Your task to perform on an android device: turn on location history Image 0: 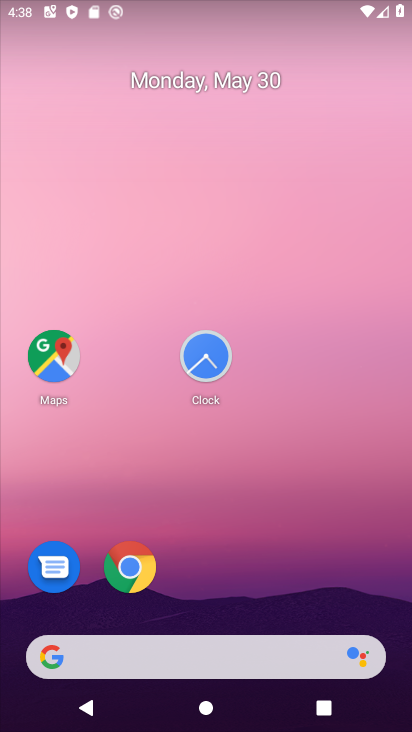
Step 0: drag from (264, 674) to (129, 0)
Your task to perform on an android device: turn on location history Image 1: 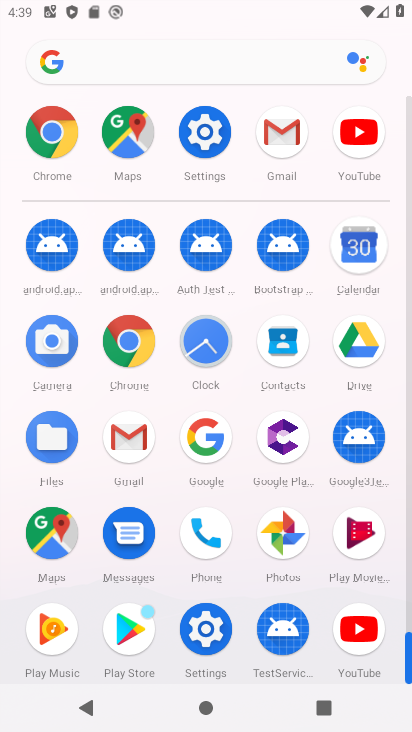
Step 1: click (52, 526)
Your task to perform on an android device: turn on location history Image 2: 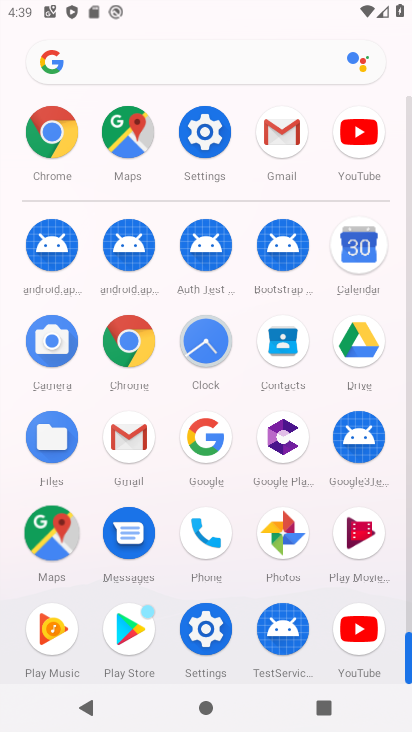
Step 2: click (52, 526)
Your task to perform on an android device: turn on location history Image 3: 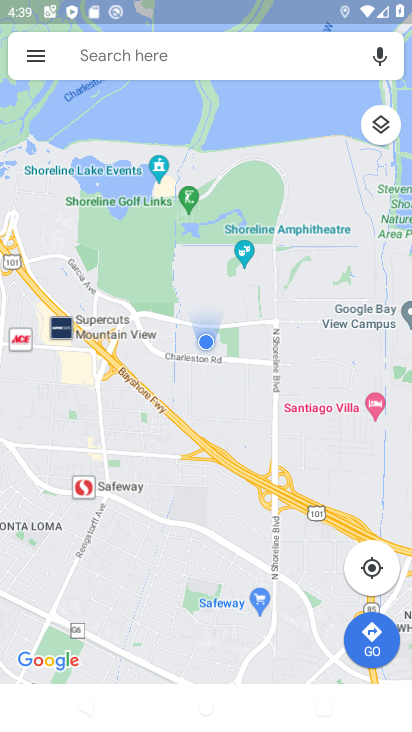
Step 3: click (78, 53)
Your task to perform on an android device: turn on location history Image 4: 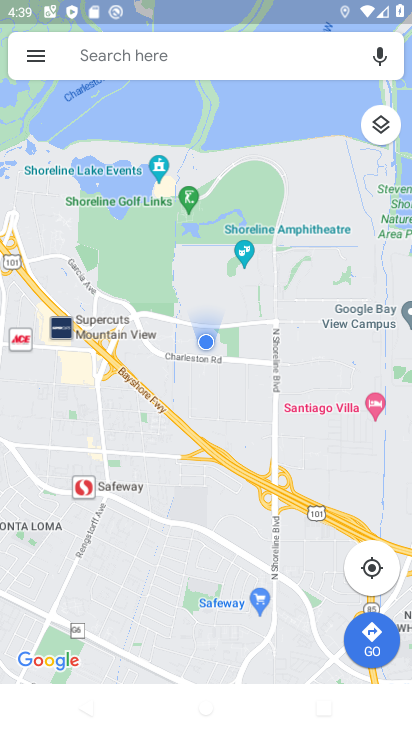
Step 4: click (34, 65)
Your task to perform on an android device: turn on location history Image 5: 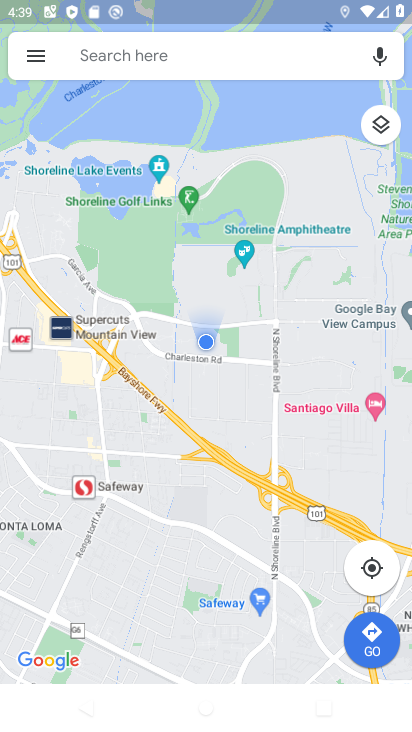
Step 5: click (34, 65)
Your task to perform on an android device: turn on location history Image 6: 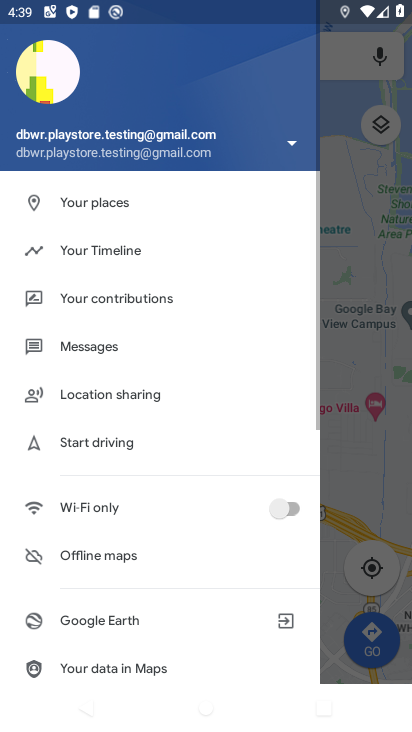
Step 6: click (30, 68)
Your task to perform on an android device: turn on location history Image 7: 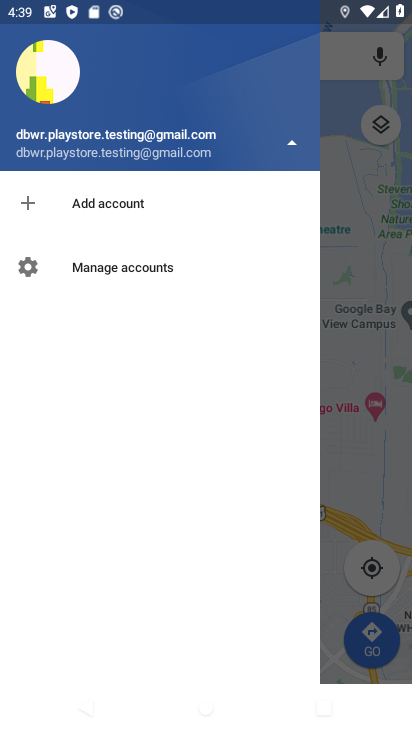
Step 7: click (147, 204)
Your task to perform on an android device: turn on location history Image 8: 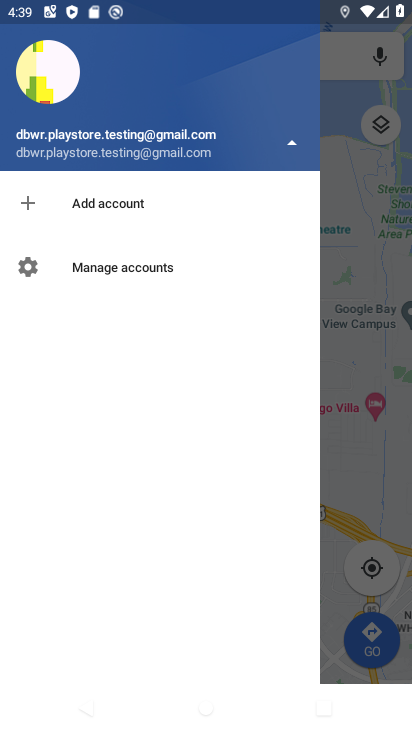
Step 8: click (146, 207)
Your task to perform on an android device: turn on location history Image 9: 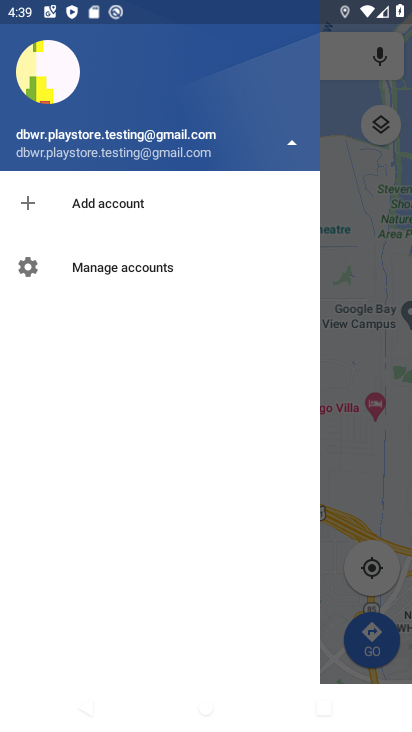
Step 9: click (146, 207)
Your task to perform on an android device: turn on location history Image 10: 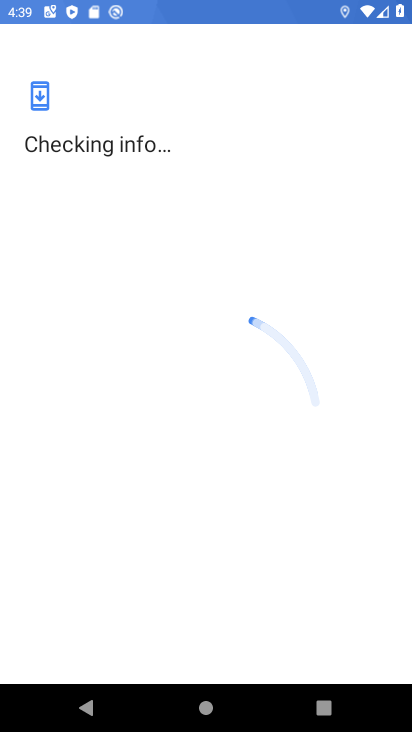
Step 10: click (139, 195)
Your task to perform on an android device: turn on location history Image 11: 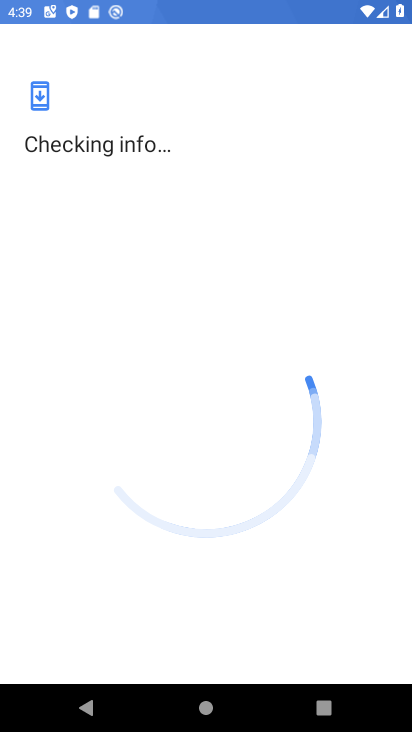
Step 11: click (139, 196)
Your task to perform on an android device: turn on location history Image 12: 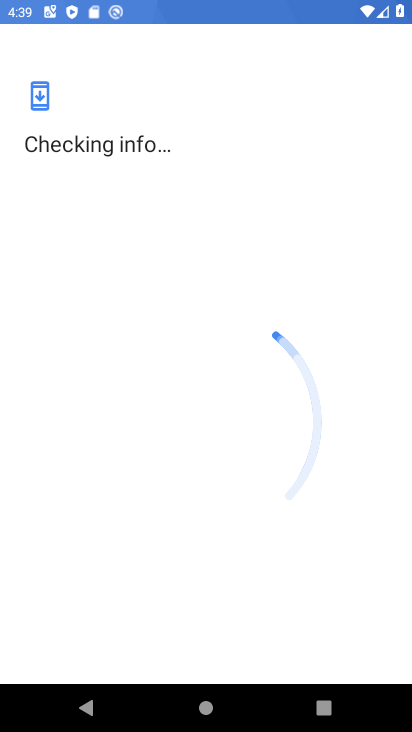
Step 12: press back button
Your task to perform on an android device: turn on location history Image 13: 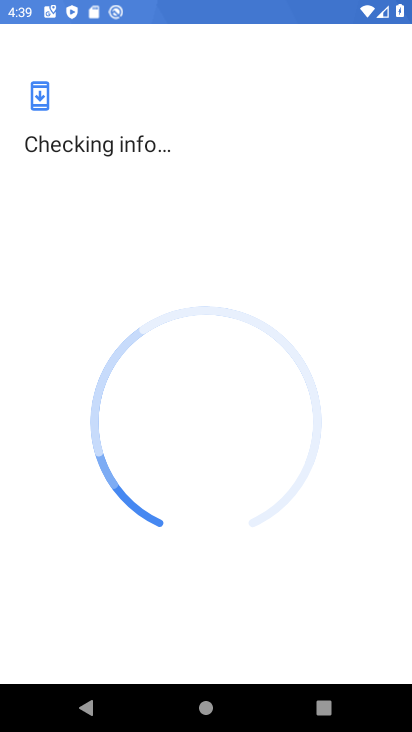
Step 13: press back button
Your task to perform on an android device: turn on location history Image 14: 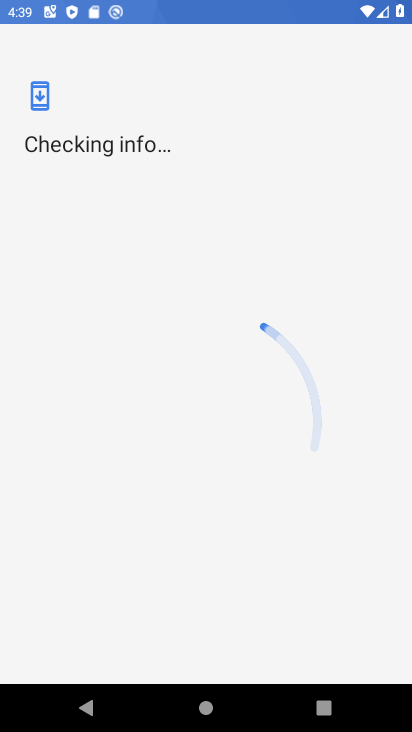
Step 14: press back button
Your task to perform on an android device: turn on location history Image 15: 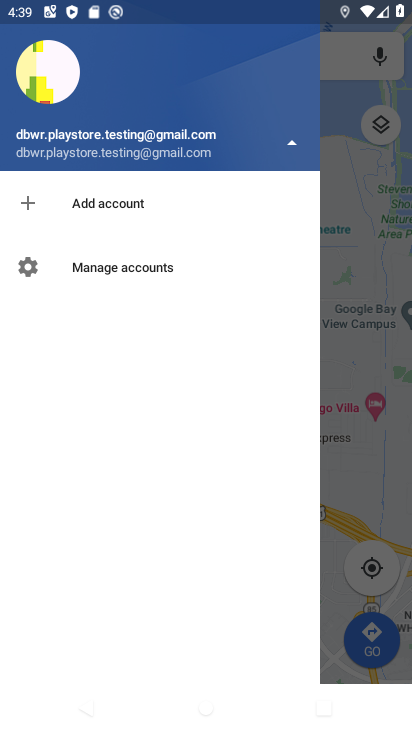
Step 15: press home button
Your task to perform on an android device: turn on location history Image 16: 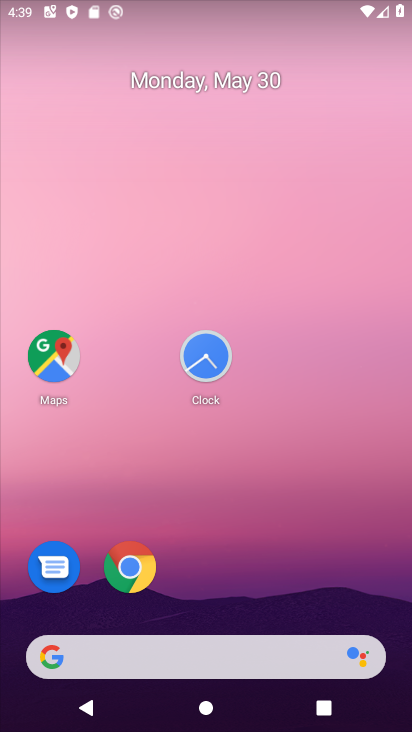
Step 16: drag from (283, 673) to (178, 181)
Your task to perform on an android device: turn on location history Image 17: 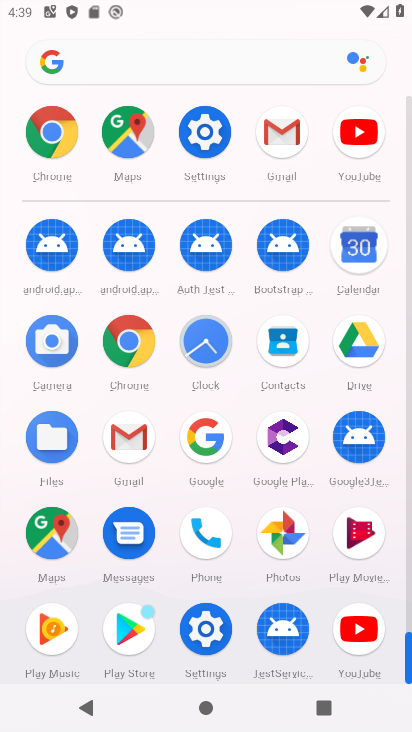
Step 17: drag from (217, 568) to (161, 132)
Your task to perform on an android device: turn on location history Image 18: 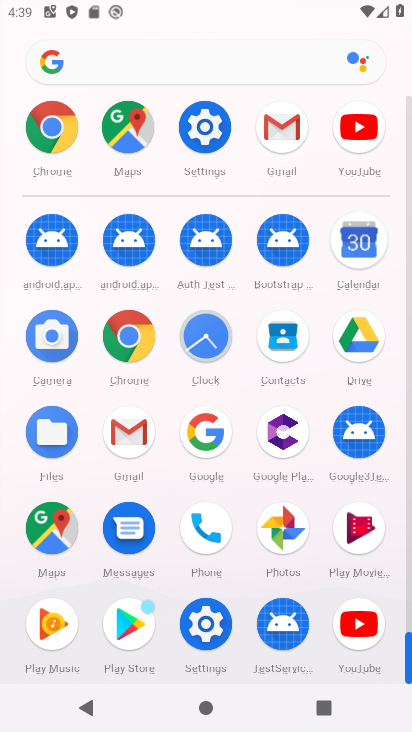
Step 18: click (197, 117)
Your task to perform on an android device: turn on location history Image 19: 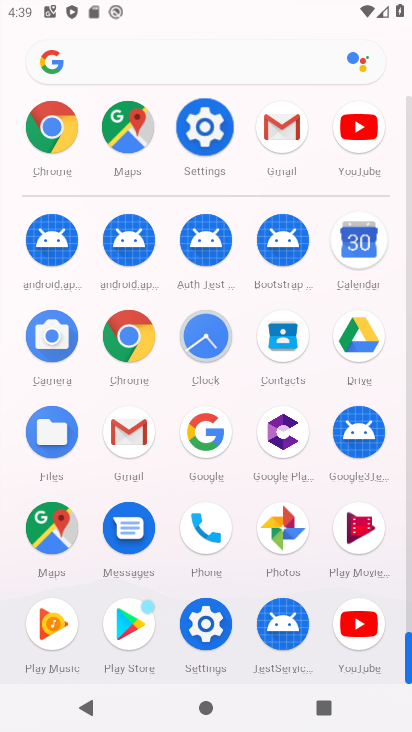
Step 19: click (197, 118)
Your task to perform on an android device: turn on location history Image 20: 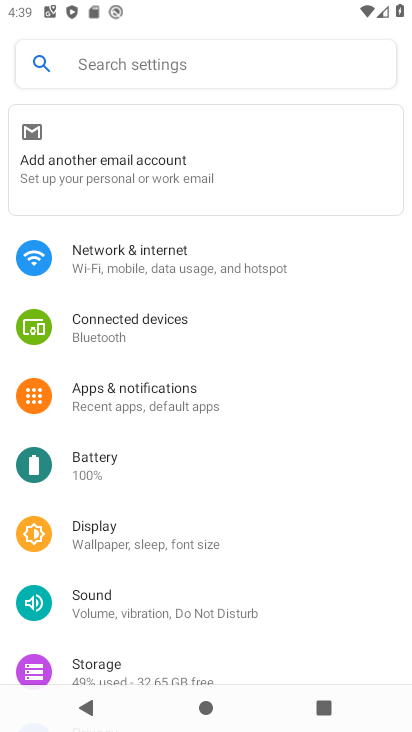
Step 20: click (201, 122)
Your task to perform on an android device: turn on location history Image 21: 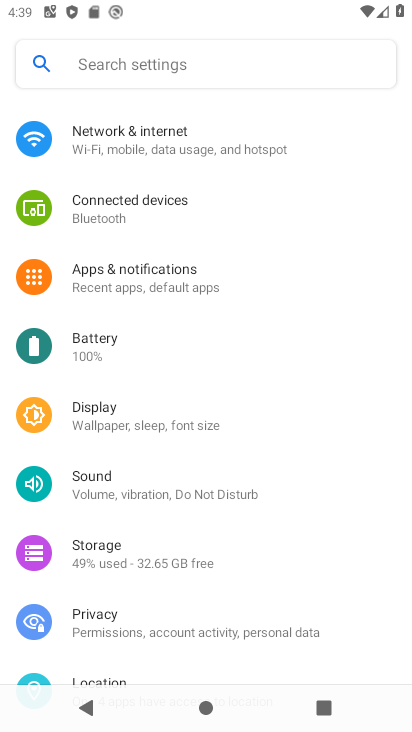
Step 21: click (203, 120)
Your task to perform on an android device: turn on location history Image 22: 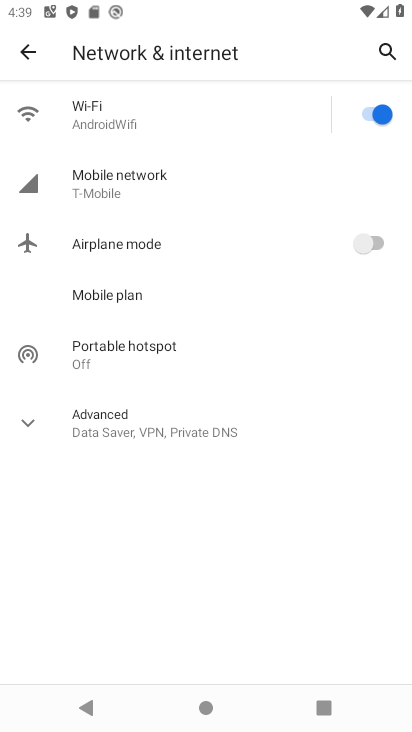
Step 22: click (31, 37)
Your task to perform on an android device: turn on location history Image 23: 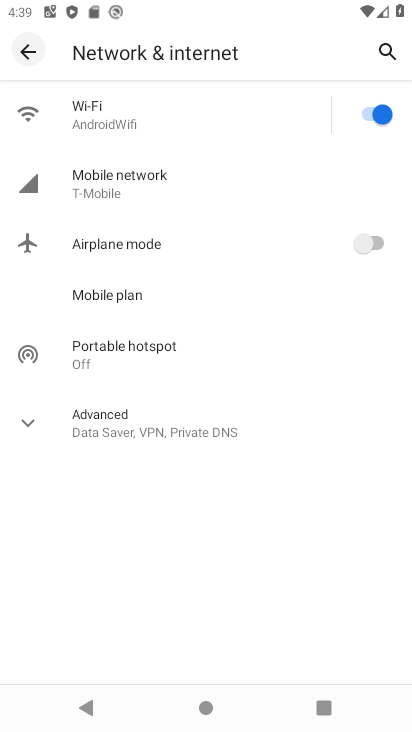
Step 23: click (30, 54)
Your task to perform on an android device: turn on location history Image 24: 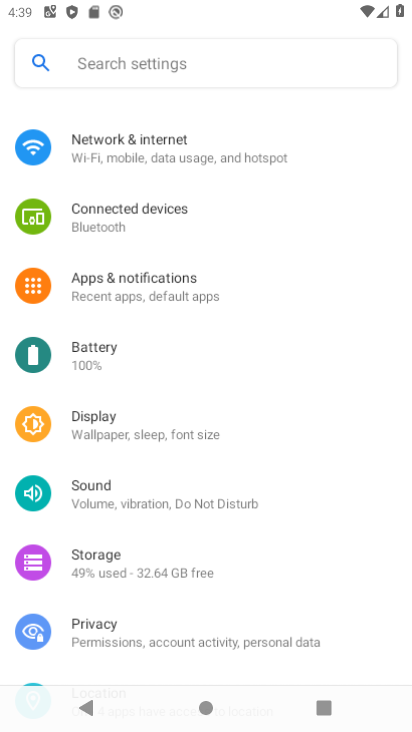
Step 24: click (29, 67)
Your task to perform on an android device: turn on location history Image 25: 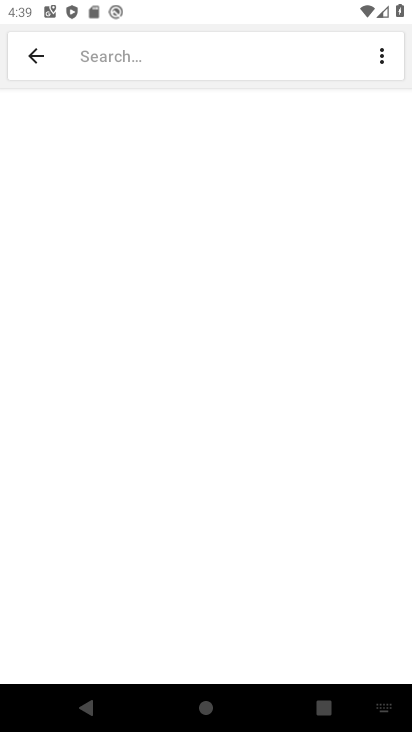
Step 25: click (30, 63)
Your task to perform on an android device: turn on location history Image 26: 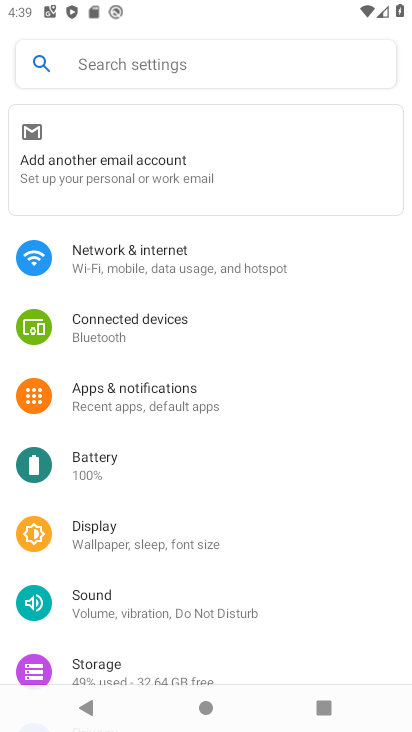
Step 26: drag from (122, 433) to (130, 195)
Your task to perform on an android device: turn on location history Image 27: 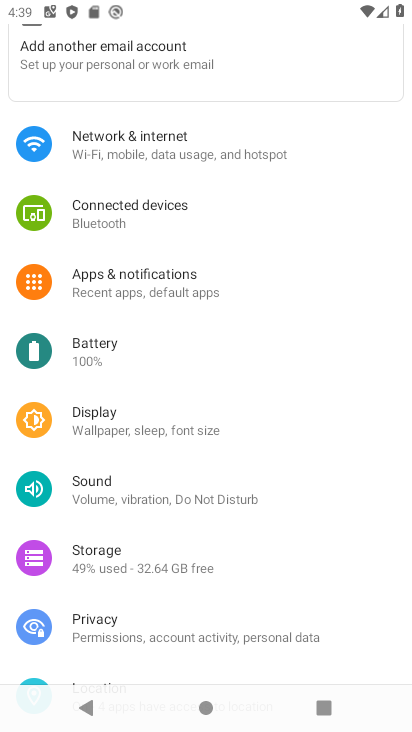
Step 27: drag from (179, 510) to (177, 242)
Your task to perform on an android device: turn on location history Image 28: 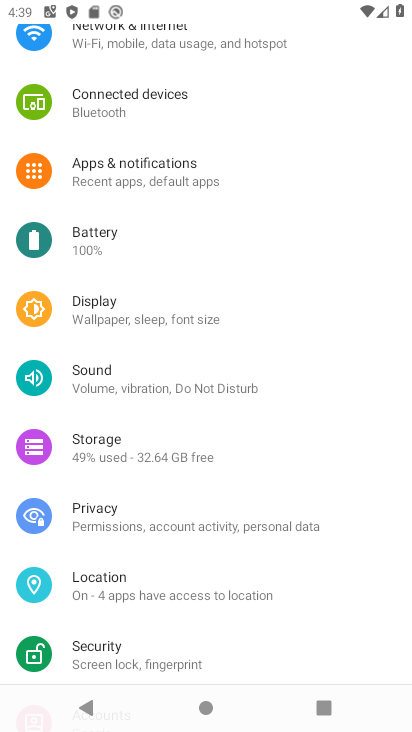
Step 28: drag from (202, 494) to (187, 143)
Your task to perform on an android device: turn on location history Image 29: 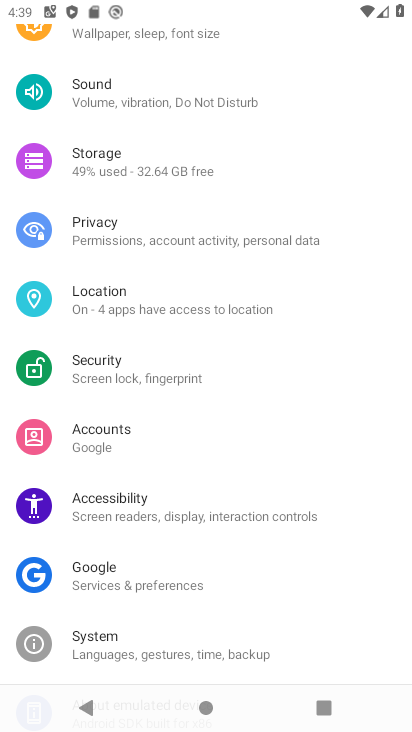
Step 29: click (129, 304)
Your task to perform on an android device: turn on location history Image 30: 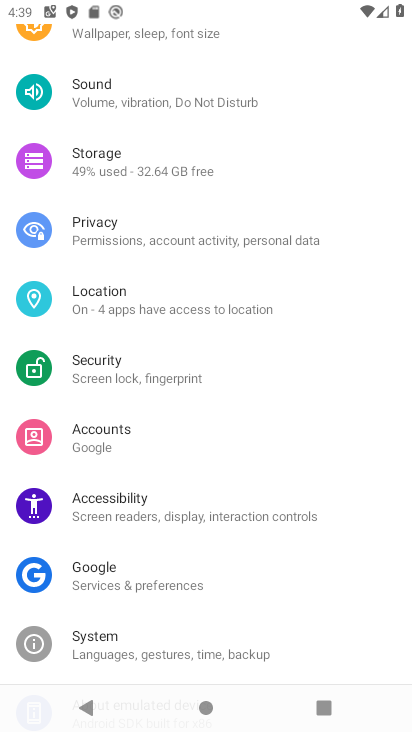
Step 30: click (129, 304)
Your task to perform on an android device: turn on location history Image 31: 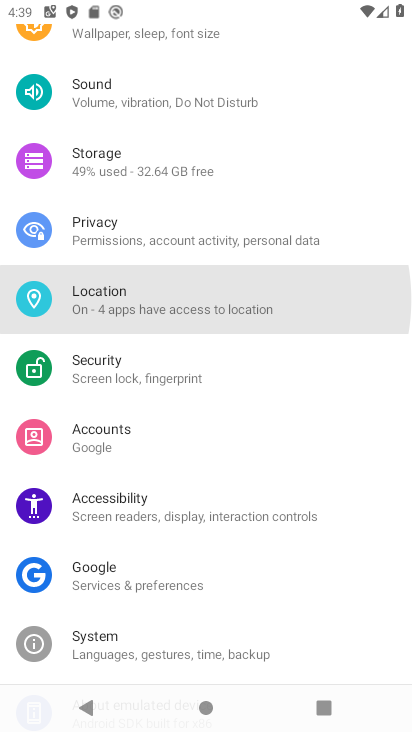
Step 31: click (129, 304)
Your task to perform on an android device: turn on location history Image 32: 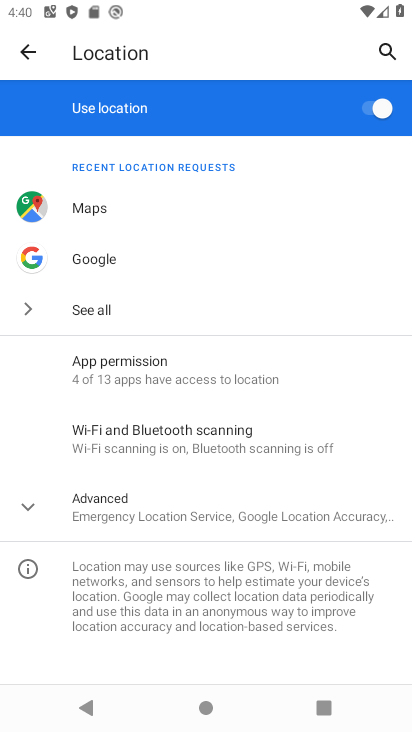
Step 32: click (113, 510)
Your task to perform on an android device: turn on location history Image 33: 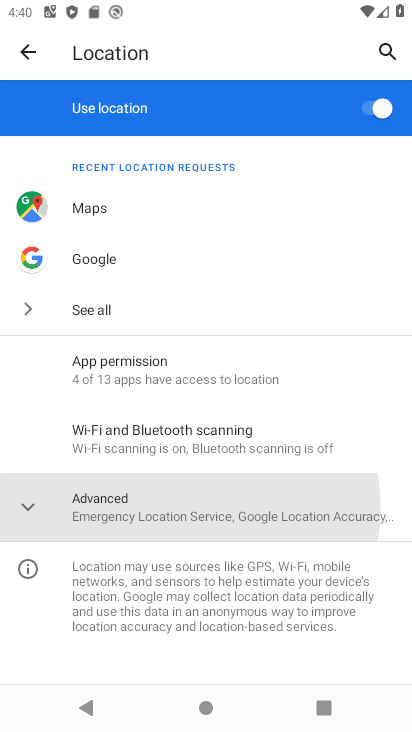
Step 33: click (113, 510)
Your task to perform on an android device: turn on location history Image 34: 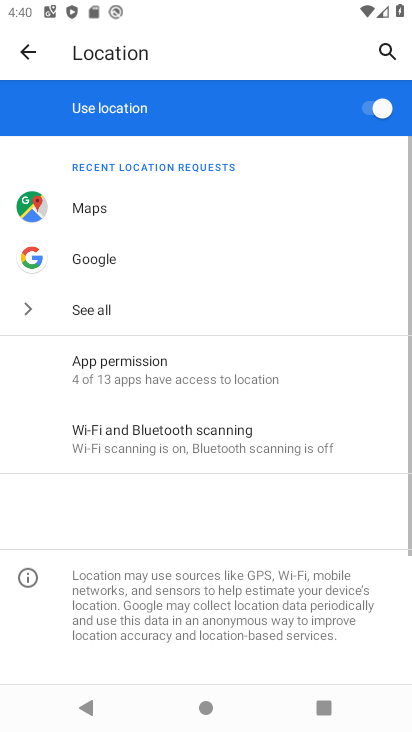
Step 34: click (117, 510)
Your task to perform on an android device: turn on location history Image 35: 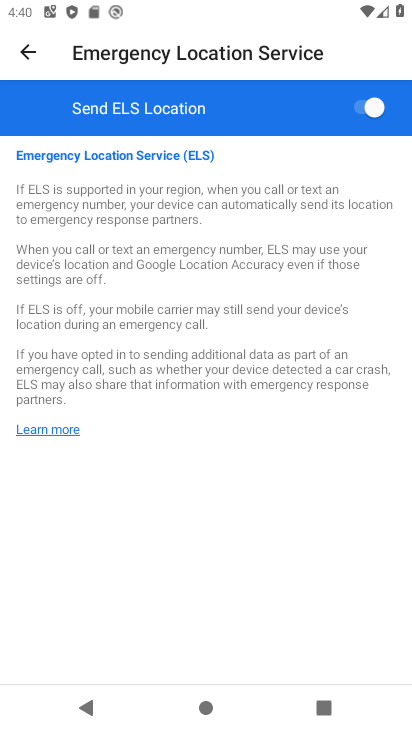
Step 35: click (174, 456)
Your task to perform on an android device: turn on location history Image 36: 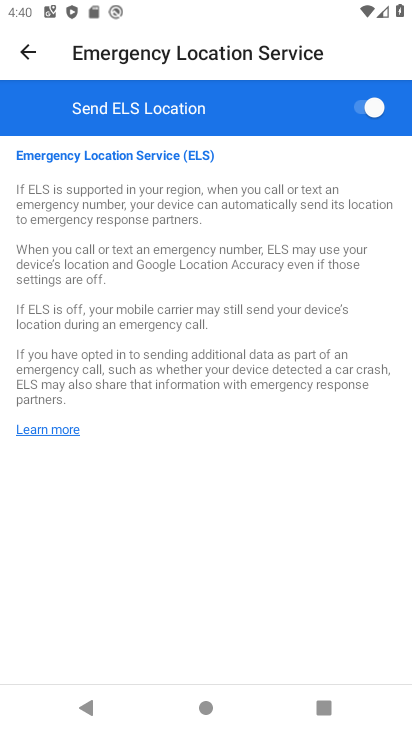
Step 36: click (32, 46)
Your task to perform on an android device: turn on location history Image 37: 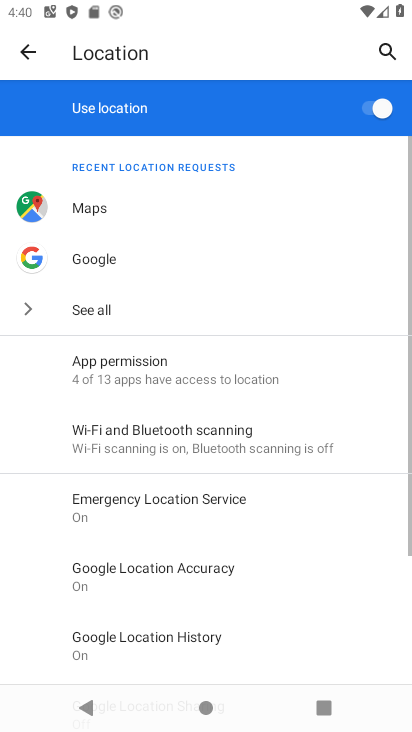
Step 37: click (153, 638)
Your task to perform on an android device: turn on location history Image 38: 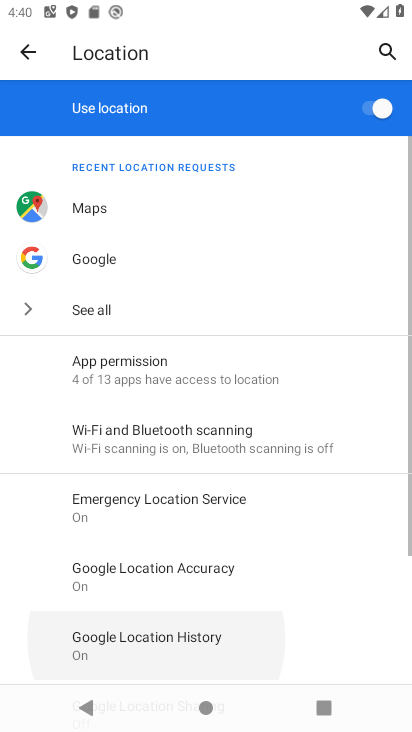
Step 38: click (153, 638)
Your task to perform on an android device: turn on location history Image 39: 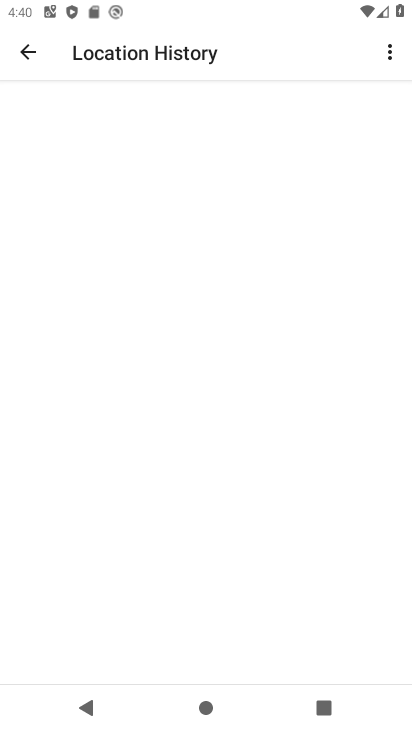
Step 39: click (155, 641)
Your task to perform on an android device: turn on location history Image 40: 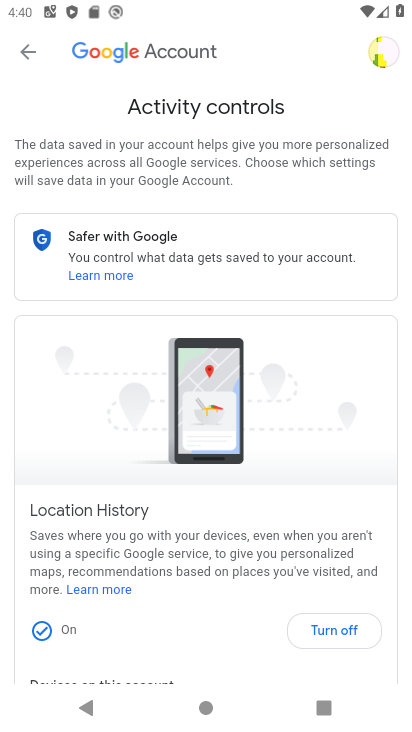
Step 40: click (340, 630)
Your task to perform on an android device: turn on location history Image 41: 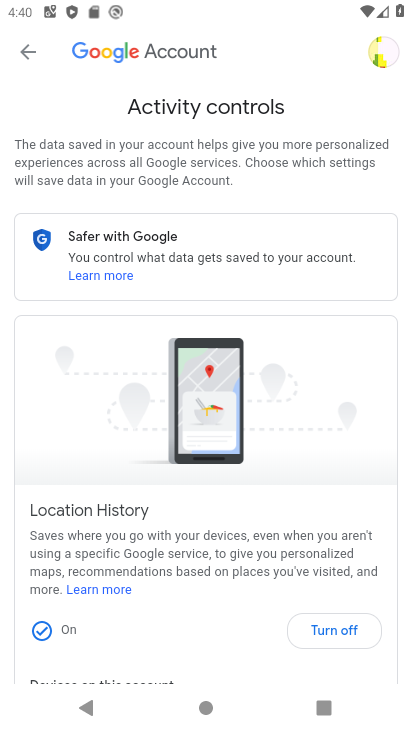
Step 41: click (340, 630)
Your task to perform on an android device: turn on location history Image 42: 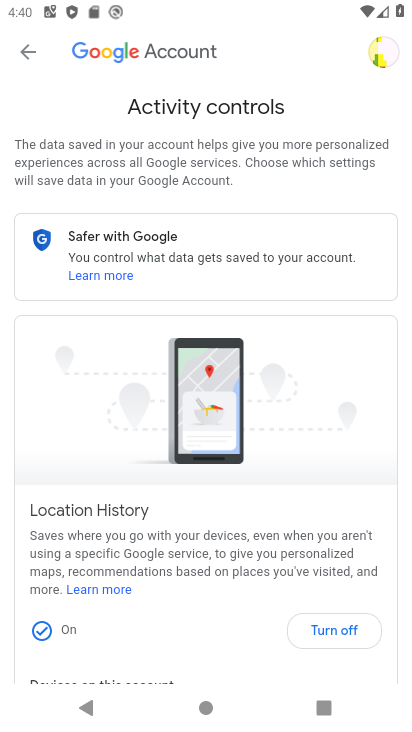
Step 42: click (340, 630)
Your task to perform on an android device: turn on location history Image 43: 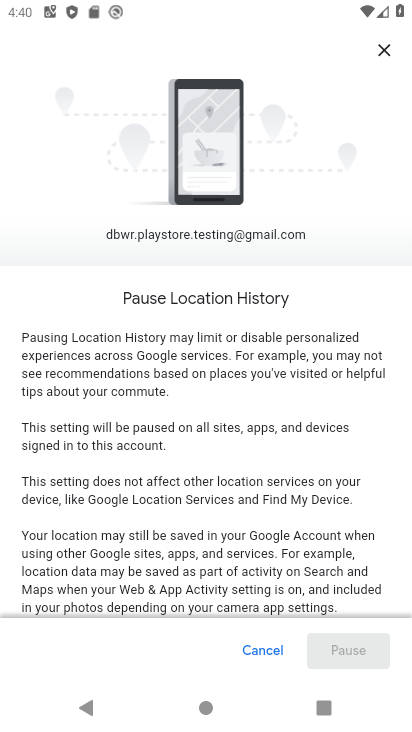
Step 43: click (341, 629)
Your task to perform on an android device: turn on location history Image 44: 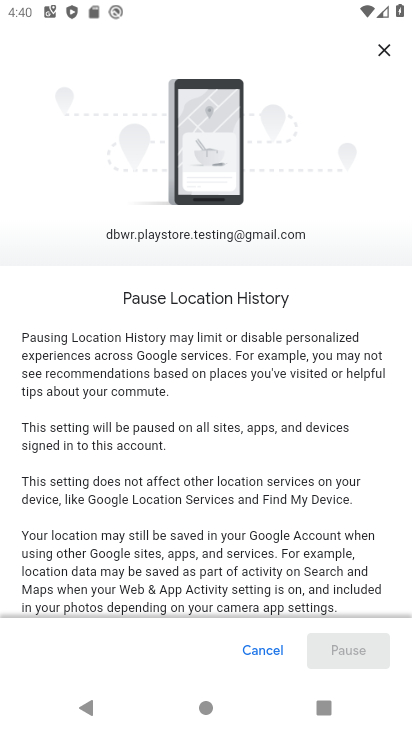
Step 44: click (341, 629)
Your task to perform on an android device: turn on location history Image 45: 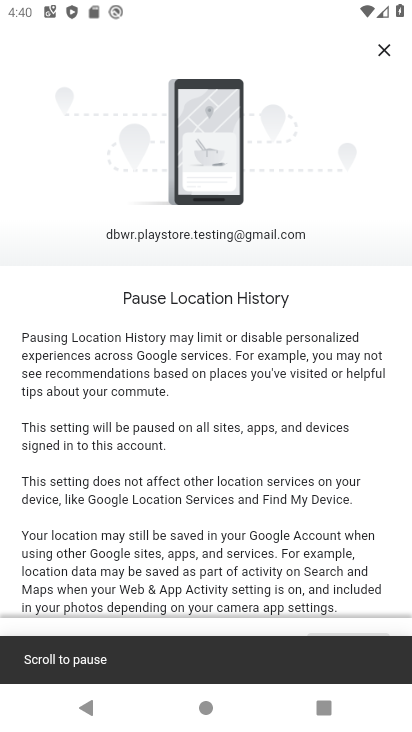
Step 45: task complete